Your task to perform on an android device: Go to sound settings Image 0: 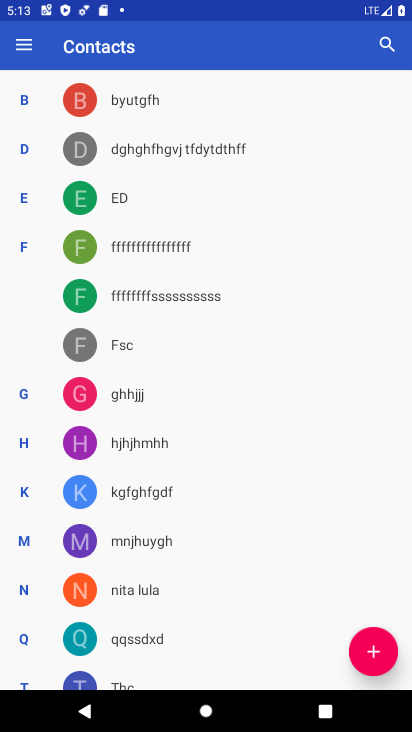
Step 0: press home button
Your task to perform on an android device: Go to sound settings Image 1: 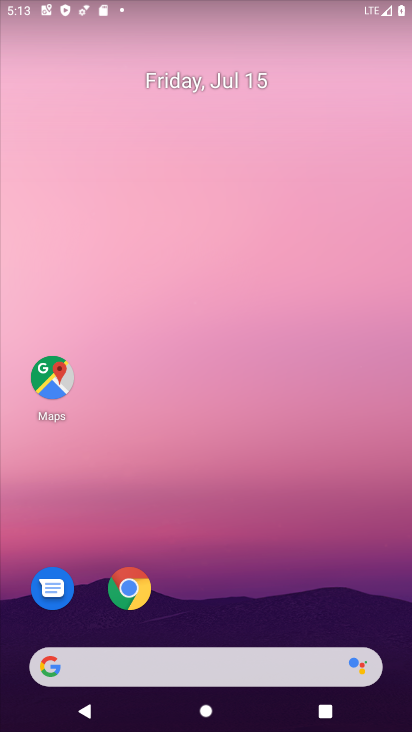
Step 1: drag from (108, 657) to (171, 13)
Your task to perform on an android device: Go to sound settings Image 2: 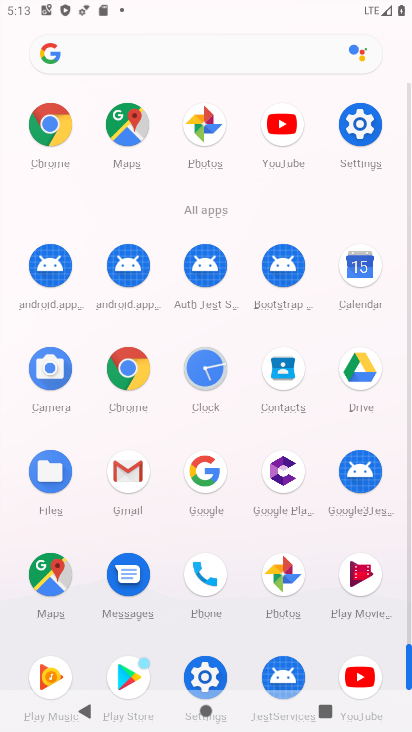
Step 2: click (371, 108)
Your task to perform on an android device: Go to sound settings Image 3: 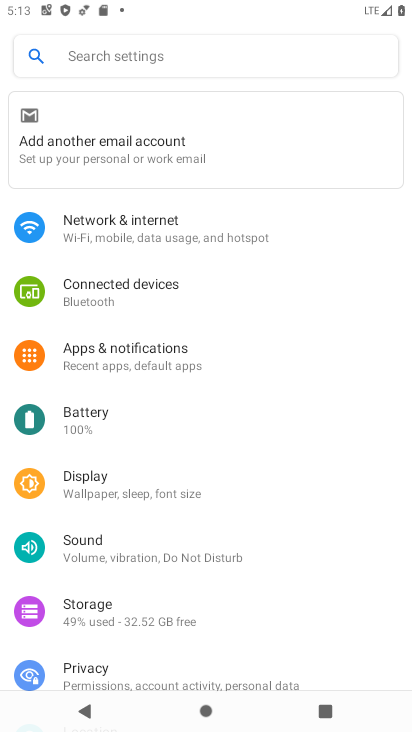
Step 3: click (190, 543)
Your task to perform on an android device: Go to sound settings Image 4: 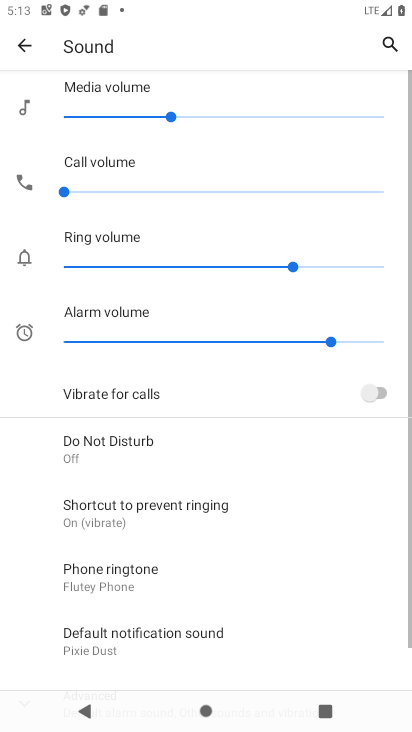
Step 4: task complete